Your task to perform on an android device: open device folders in google photos Image 0: 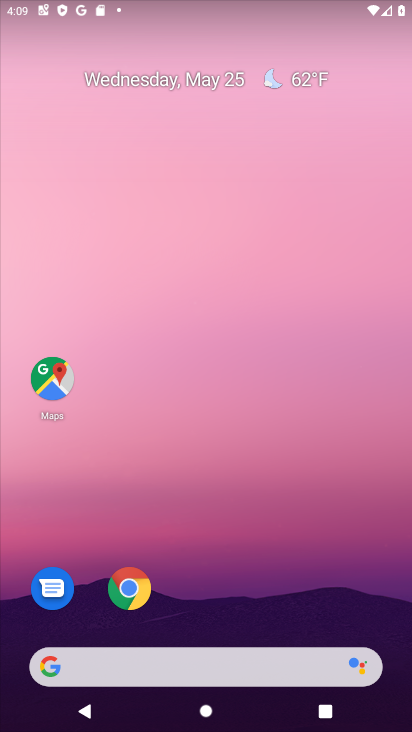
Step 0: drag from (255, 583) to (267, 132)
Your task to perform on an android device: open device folders in google photos Image 1: 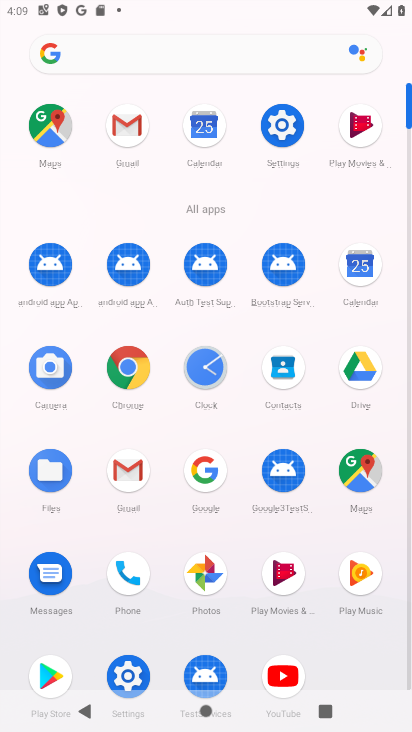
Step 1: click (208, 578)
Your task to perform on an android device: open device folders in google photos Image 2: 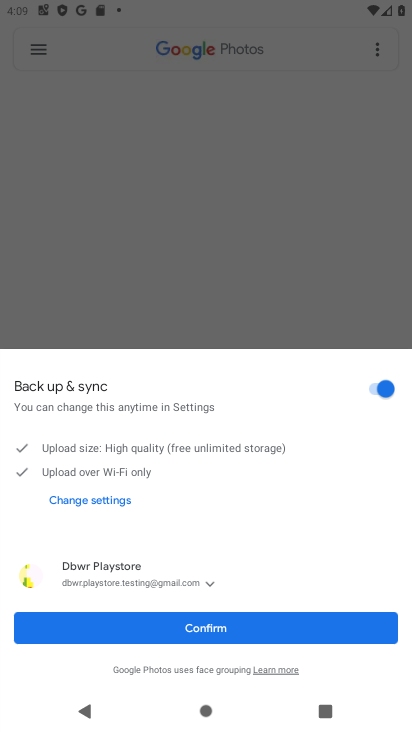
Step 2: click (225, 621)
Your task to perform on an android device: open device folders in google photos Image 3: 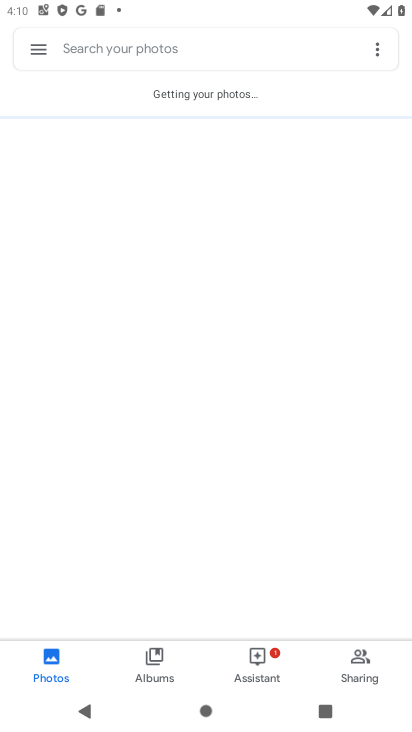
Step 3: click (43, 47)
Your task to perform on an android device: open device folders in google photos Image 4: 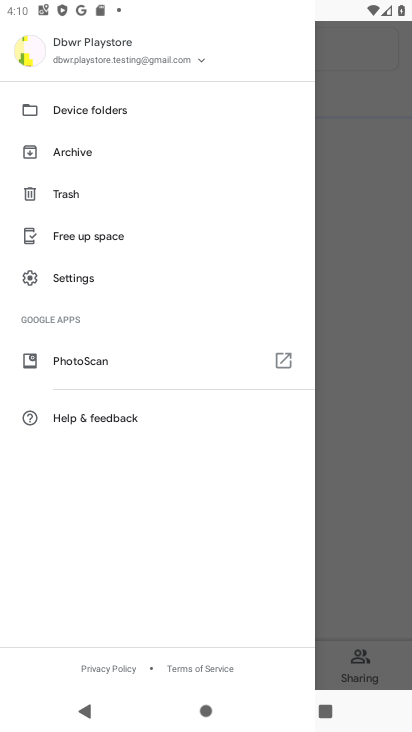
Step 4: click (98, 115)
Your task to perform on an android device: open device folders in google photos Image 5: 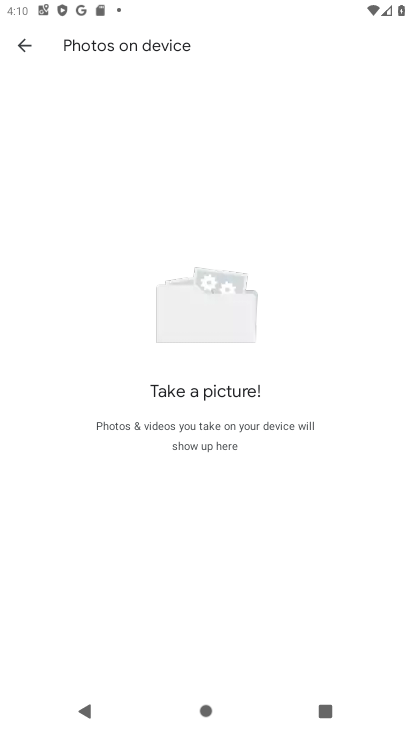
Step 5: task complete